Your task to perform on an android device: change text size in settings app Image 0: 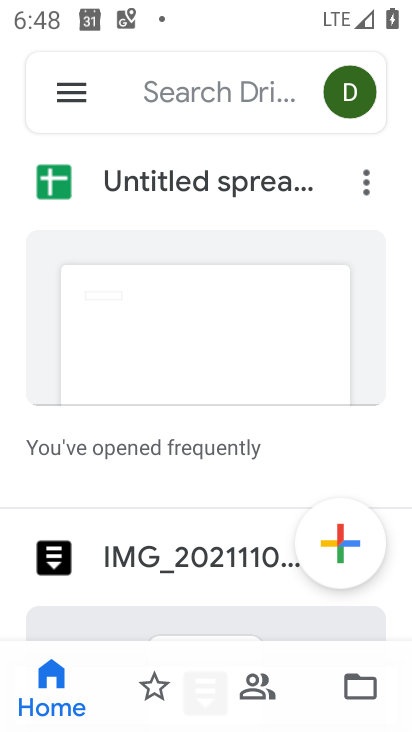
Step 0: press home button
Your task to perform on an android device: change text size in settings app Image 1: 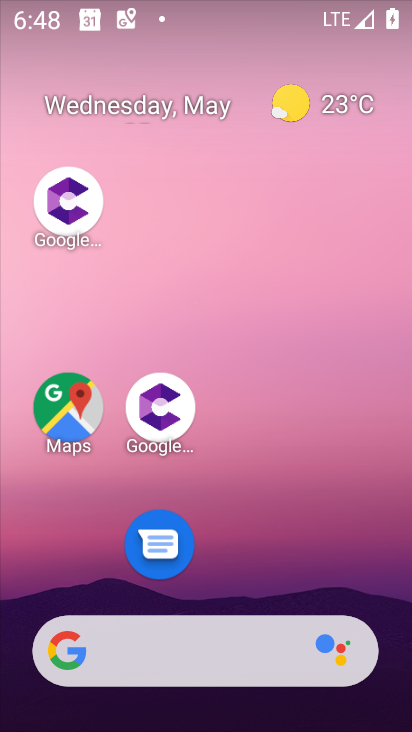
Step 1: drag from (264, 537) to (261, 0)
Your task to perform on an android device: change text size in settings app Image 2: 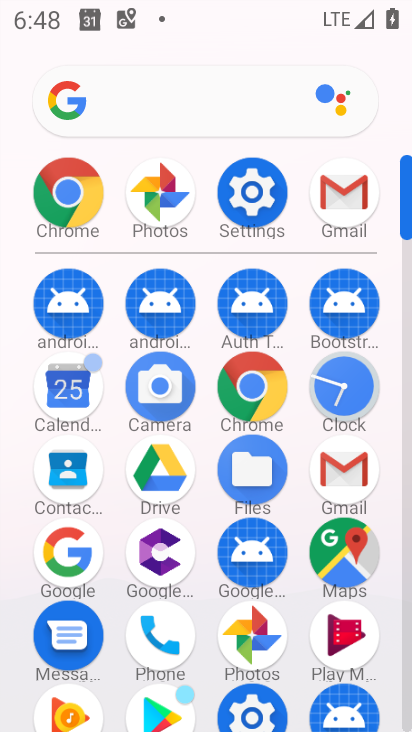
Step 2: click (243, 190)
Your task to perform on an android device: change text size in settings app Image 3: 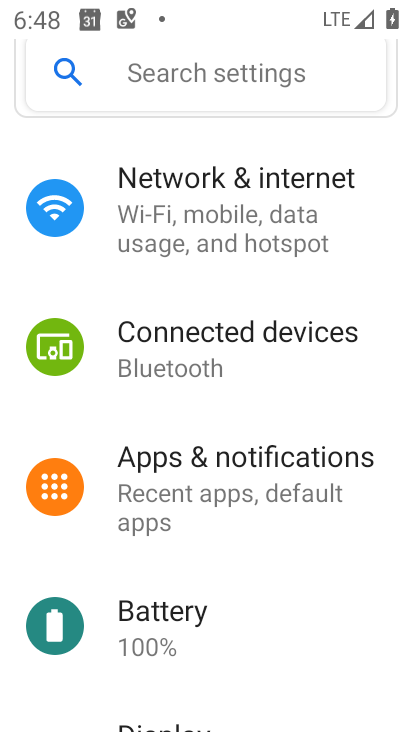
Step 3: drag from (236, 567) to (181, 295)
Your task to perform on an android device: change text size in settings app Image 4: 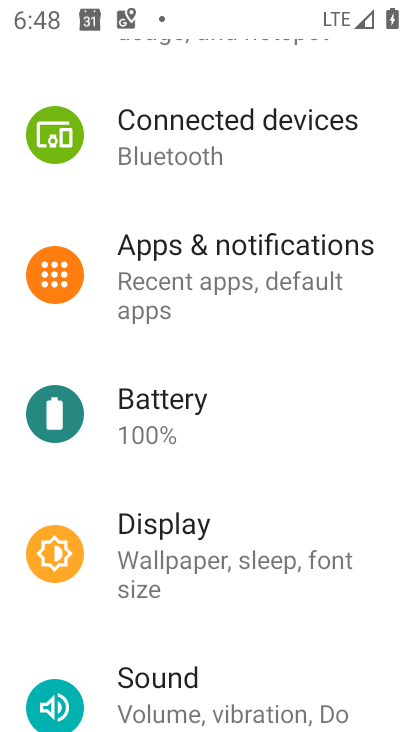
Step 4: click (168, 549)
Your task to perform on an android device: change text size in settings app Image 5: 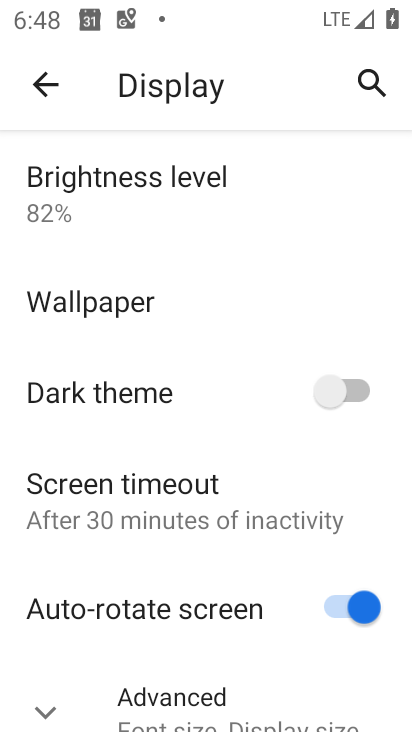
Step 5: drag from (235, 564) to (181, 216)
Your task to perform on an android device: change text size in settings app Image 6: 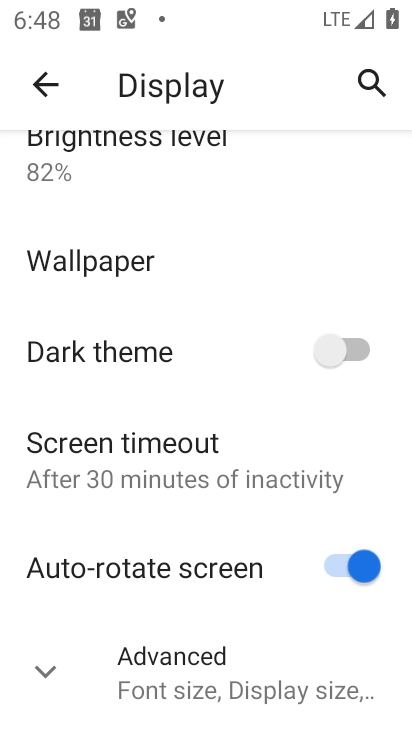
Step 6: click (37, 667)
Your task to perform on an android device: change text size in settings app Image 7: 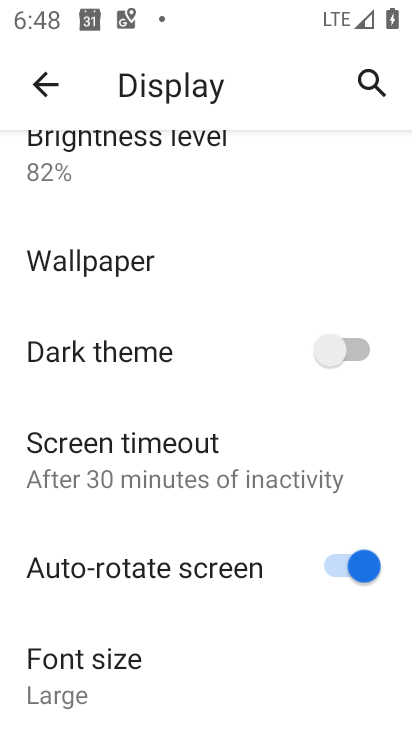
Step 7: click (75, 685)
Your task to perform on an android device: change text size in settings app Image 8: 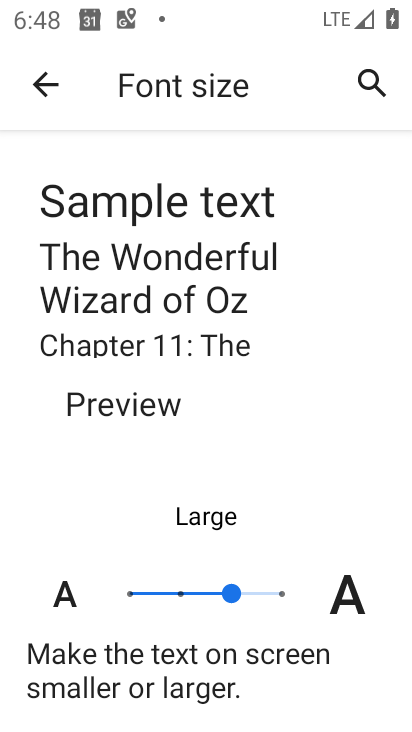
Step 8: click (259, 585)
Your task to perform on an android device: change text size in settings app Image 9: 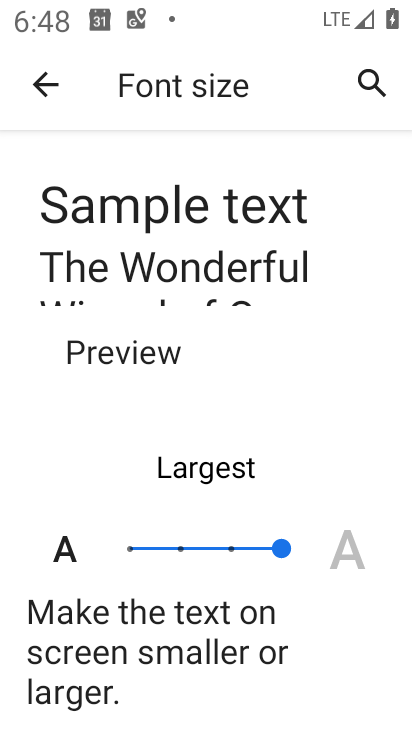
Step 9: task complete